Your task to perform on an android device: toggle priority inbox in the gmail app Image 0: 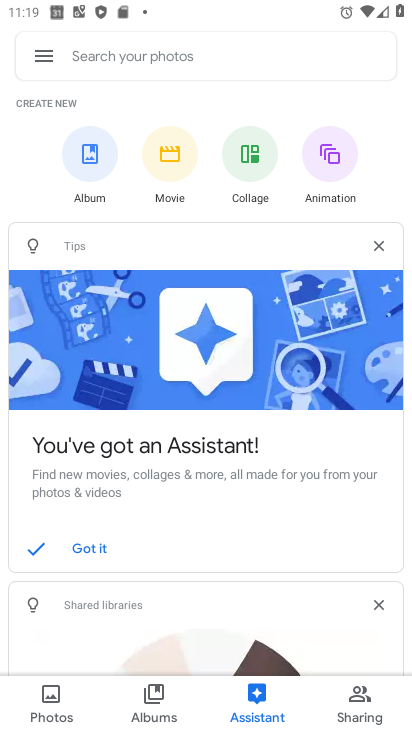
Step 0: press home button
Your task to perform on an android device: toggle priority inbox in the gmail app Image 1: 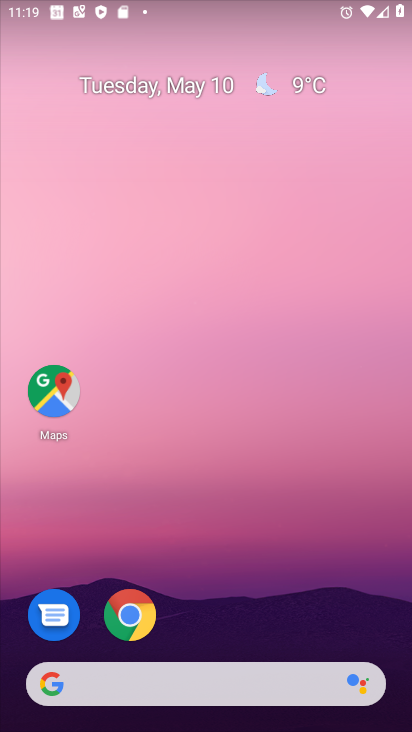
Step 1: drag from (211, 605) to (230, 211)
Your task to perform on an android device: toggle priority inbox in the gmail app Image 2: 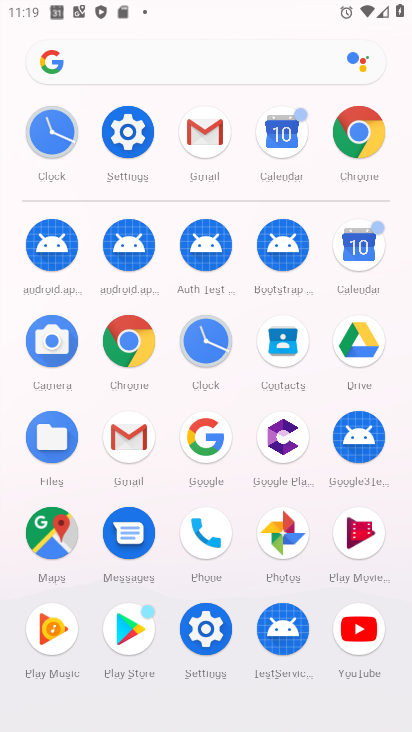
Step 2: click (124, 429)
Your task to perform on an android device: toggle priority inbox in the gmail app Image 3: 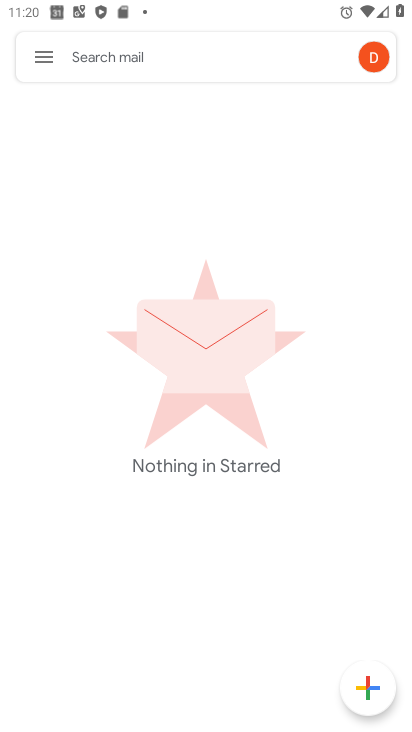
Step 3: click (42, 46)
Your task to perform on an android device: toggle priority inbox in the gmail app Image 4: 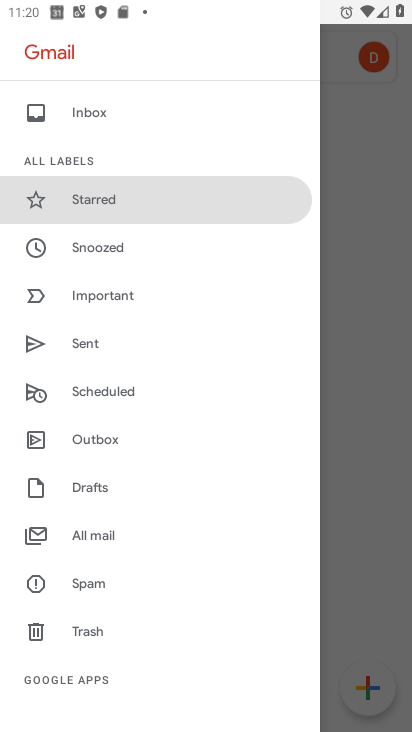
Step 4: drag from (132, 618) to (151, 284)
Your task to perform on an android device: toggle priority inbox in the gmail app Image 5: 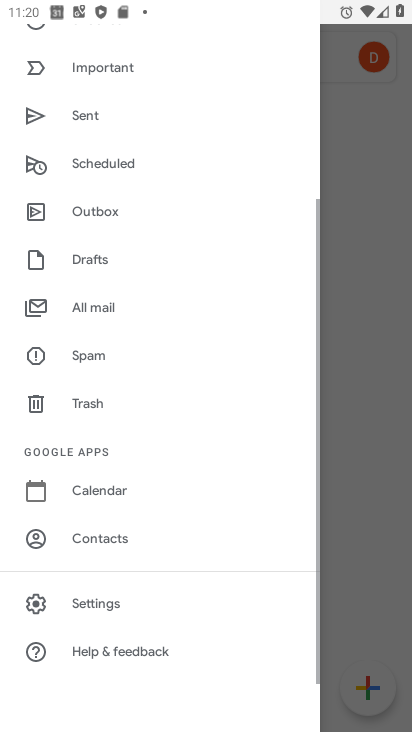
Step 5: click (159, 106)
Your task to perform on an android device: toggle priority inbox in the gmail app Image 6: 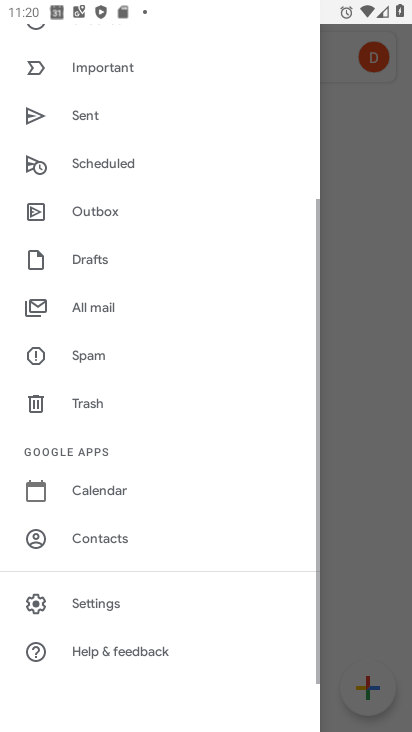
Step 6: click (131, 603)
Your task to perform on an android device: toggle priority inbox in the gmail app Image 7: 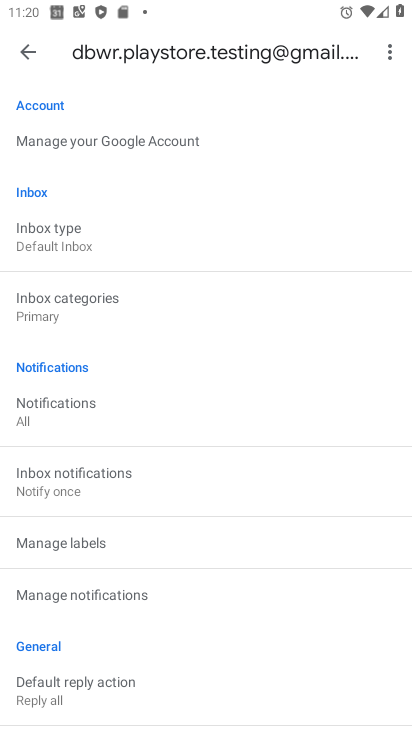
Step 7: click (88, 237)
Your task to perform on an android device: toggle priority inbox in the gmail app Image 8: 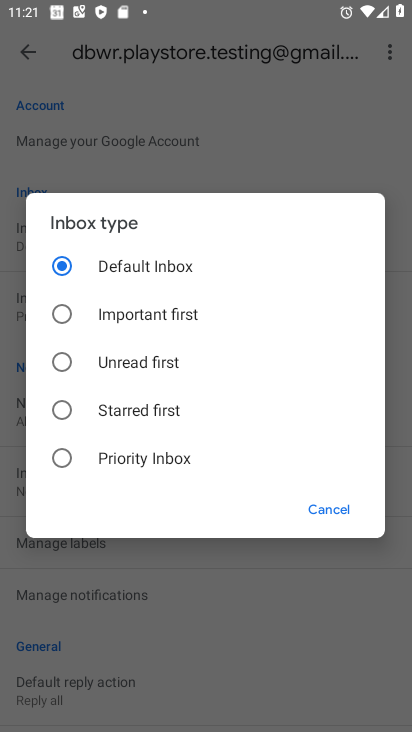
Step 8: click (60, 452)
Your task to perform on an android device: toggle priority inbox in the gmail app Image 9: 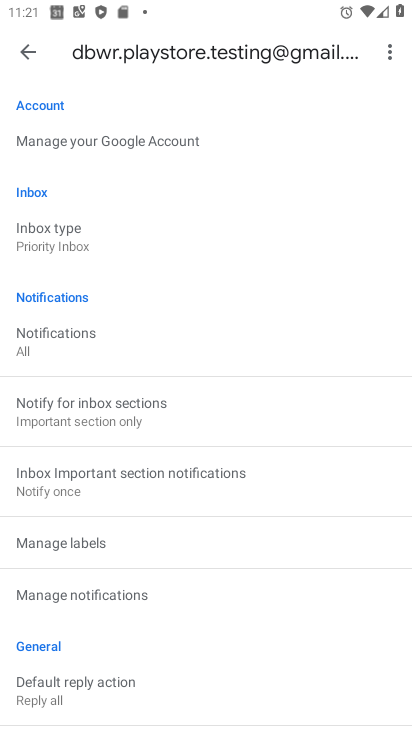
Step 9: task complete